Your task to perform on an android device: Go to location settings Image 0: 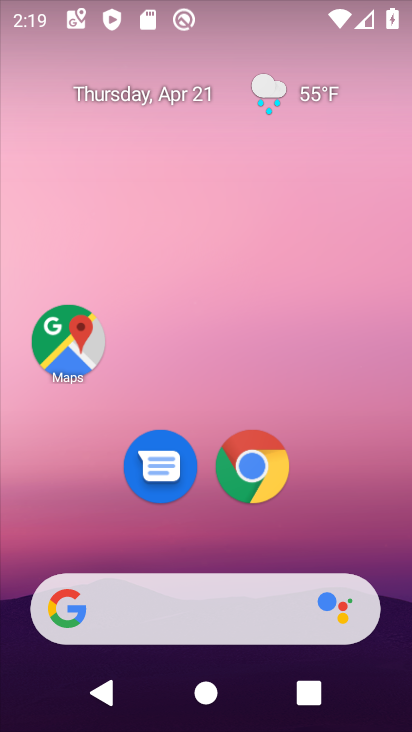
Step 0: drag from (298, 548) to (278, 123)
Your task to perform on an android device: Go to location settings Image 1: 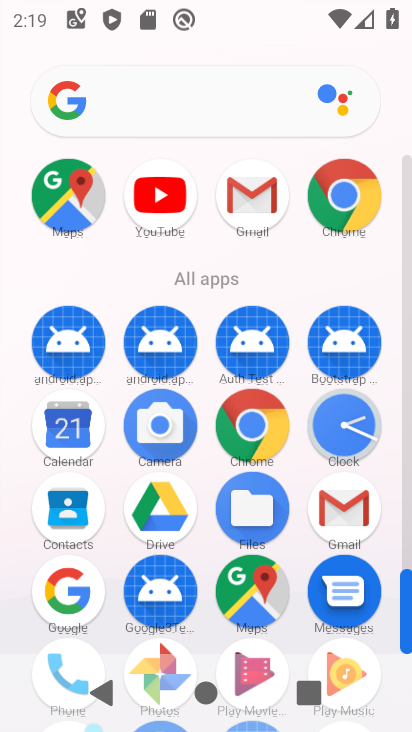
Step 1: drag from (296, 627) to (299, 266)
Your task to perform on an android device: Go to location settings Image 2: 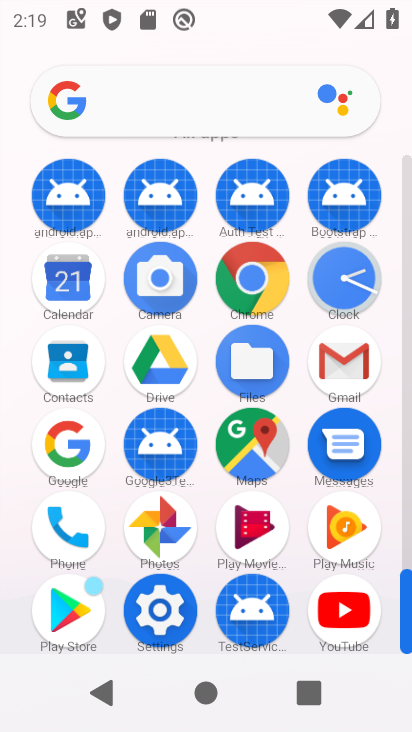
Step 2: click (171, 620)
Your task to perform on an android device: Go to location settings Image 3: 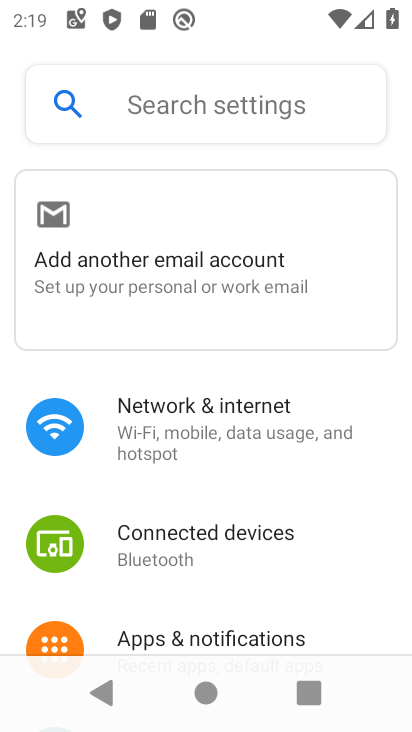
Step 3: drag from (222, 616) to (226, 299)
Your task to perform on an android device: Go to location settings Image 4: 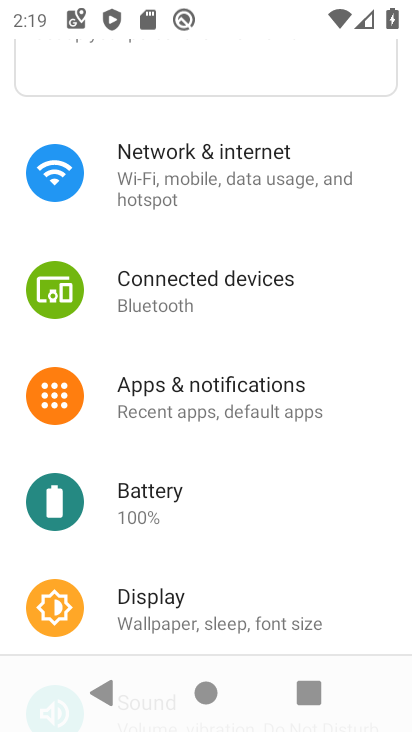
Step 4: drag from (240, 592) to (252, 228)
Your task to perform on an android device: Go to location settings Image 5: 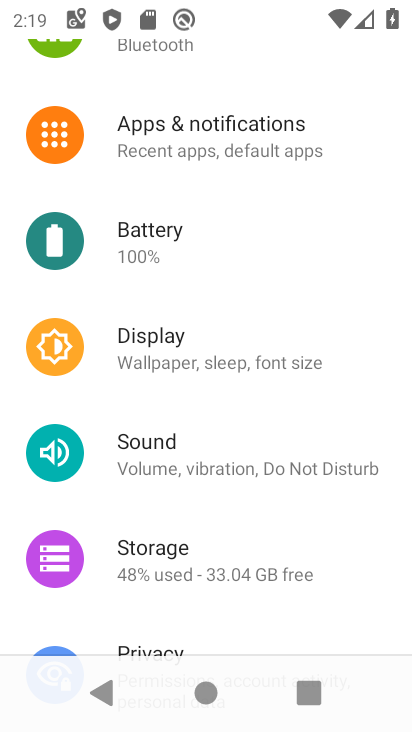
Step 5: drag from (230, 620) to (224, 242)
Your task to perform on an android device: Go to location settings Image 6: 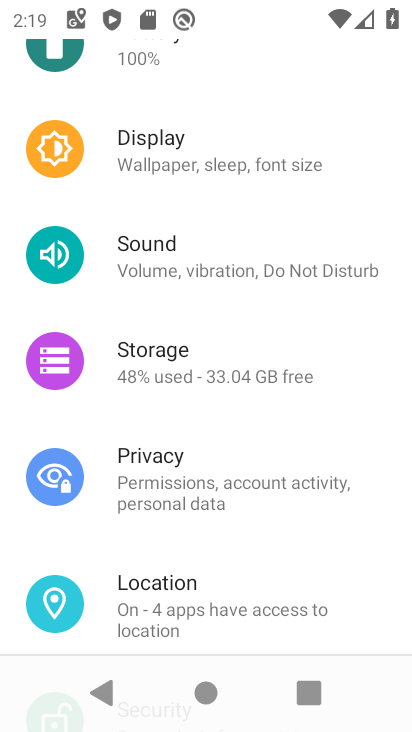
Step 6: click (157, 609)
Your task to perform on an android device: Go to location settings Image 7: 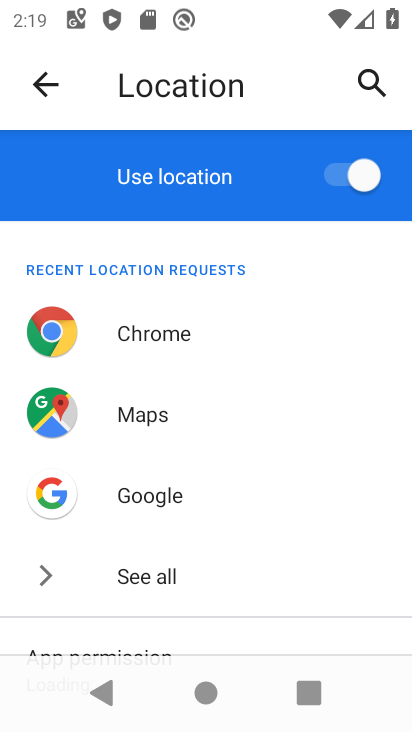
Step 7: task complete